Your task to perform on an android device: add a contact in the contacts app Image 0: 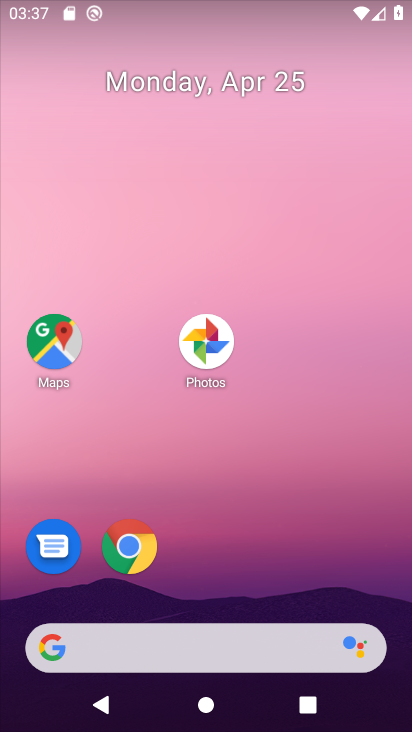
Step 0: drag from (249, 423) to (249, 229)
Your task to perform on an android device: add a contact in the contacts app Image 1: 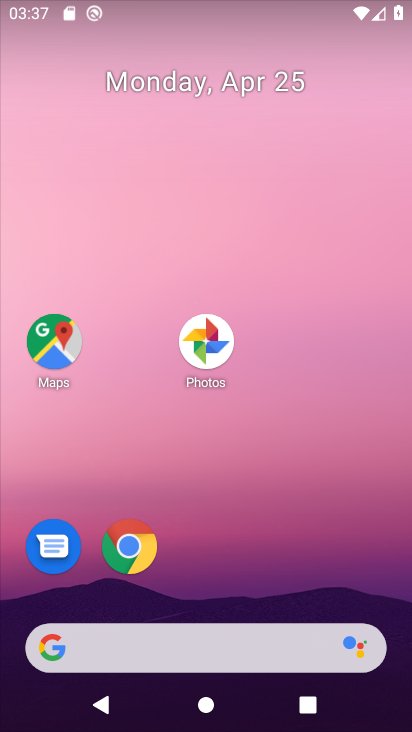
Step 1: drag from (300, 554) to (291, 172)
Your task to perform on an android device: add a contact in the contacts app Image 2: 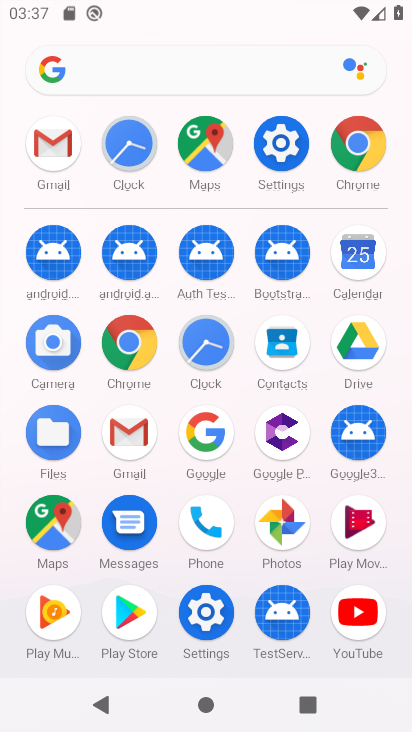
Step 2: click (202, 524)
Your task to perform on an android device: add a contact in the contacts app Image 3: 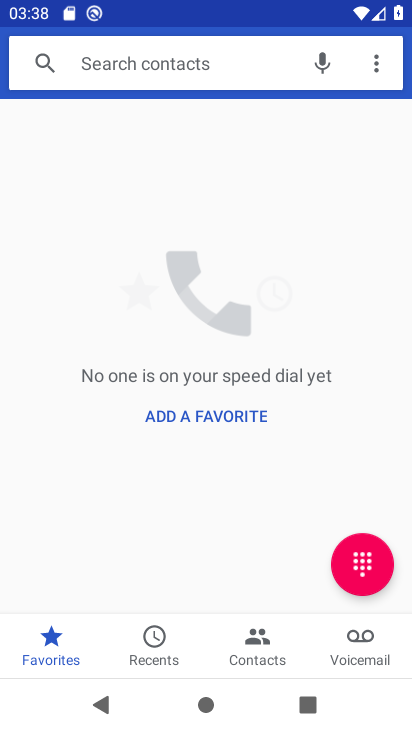
Step 3: click (219, 414)
Your task to perform on an android device: add a contact in the contacts app Image 4: 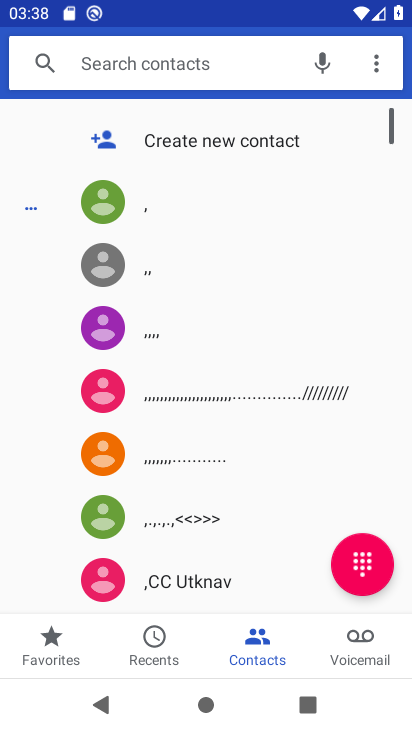
Step 4: click (208, 132)
Your task to perform on an android device: add a contact in the contacts app Image 5: 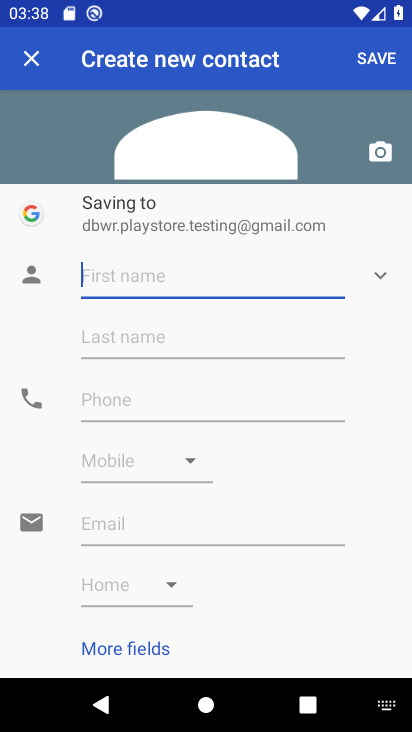
Step 5: type "kaakaakakakka"
Your task to perform on an android device: add a contact in the contacts app Image 6: 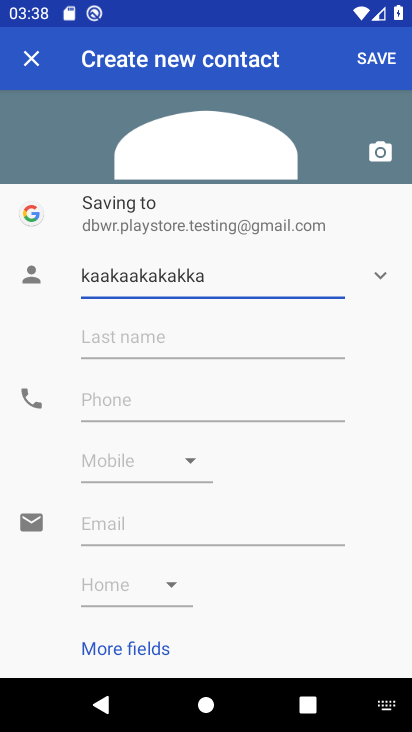
Step 6: click (234, 385)
Your task to perform on an android device: add a contact in the contacts app Image 7: 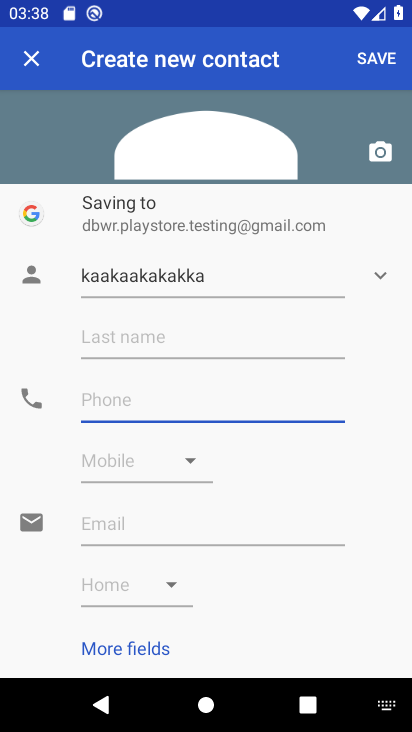
Step 7: type "34334334444"
Your task to perform on an android device: add a contact in the contacts app Image 8: 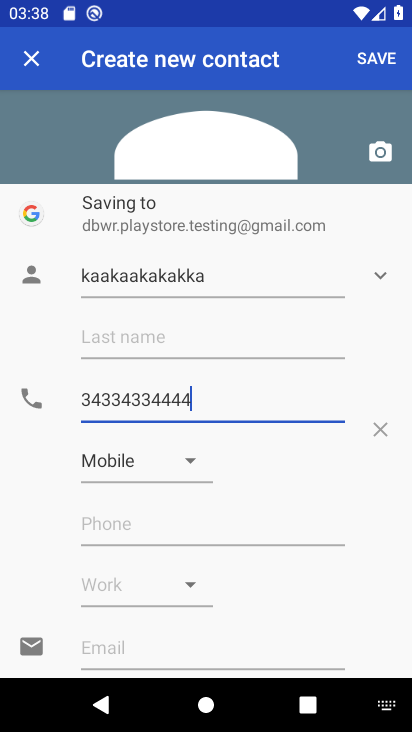
Step 8: click (375, 57)
Your task to perform on an android device: add a contact in the contacts app Image 9: 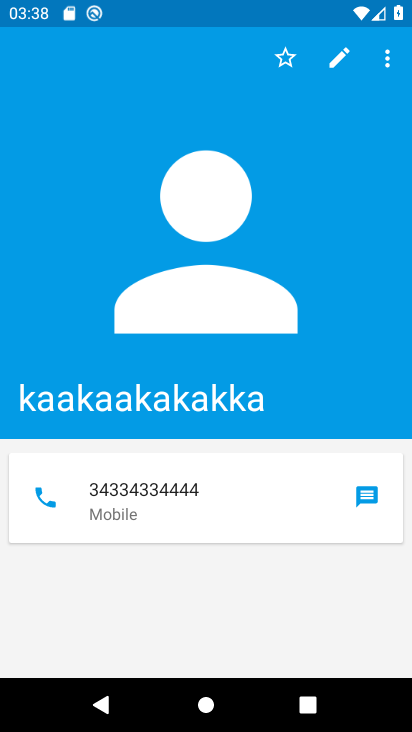
Step 9: task complete